Your task to perform on an android device: Go to Android settings Image 0: 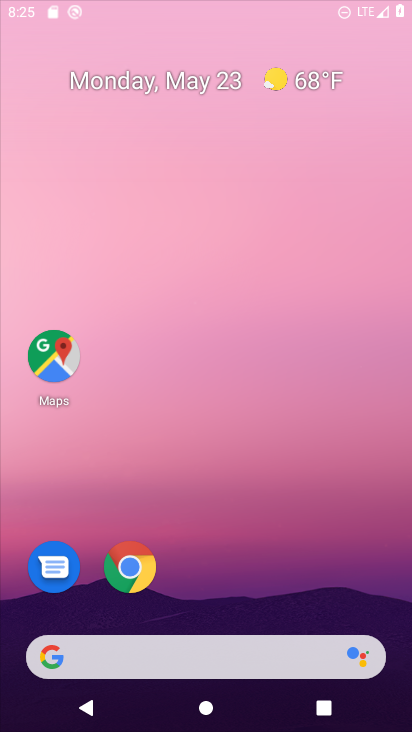
Step 0: click (395, 500)
Your task to perform on an android device: Go to Android settings Image 1: 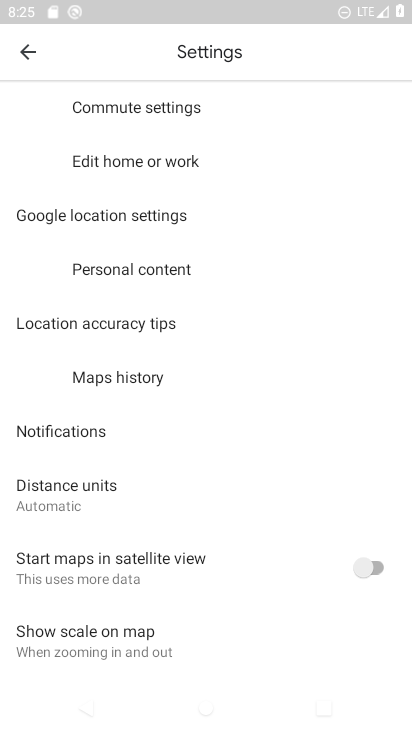
Step 1: drag from (190, 681) to (264, 30)
Your task to perform on an android device: Go to Android settings Image 2: 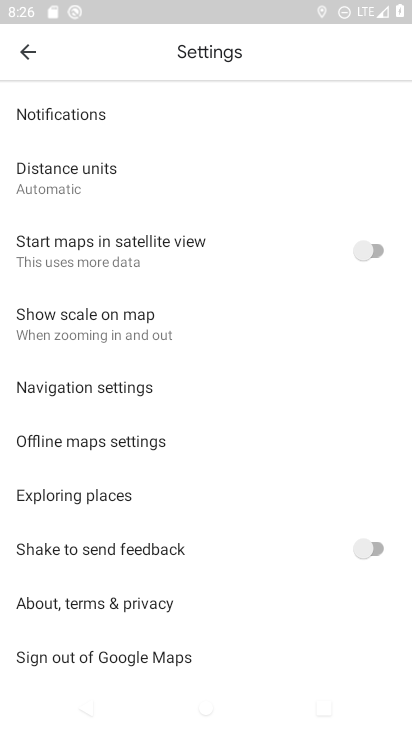
Step 2: drag from (182, 650) to (331, 7)
Your task to perform on an android device: Go to Android settings Image 3: 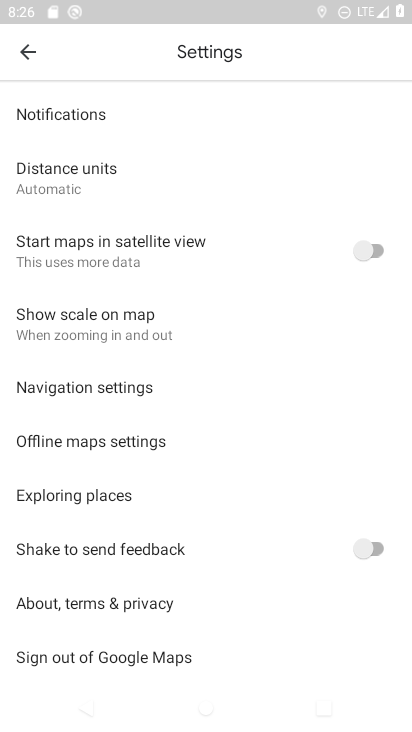
Step 3: drag from (194, 248) to (212, 676)
Your task to perform on an android device: Go to Android settings Image 4: 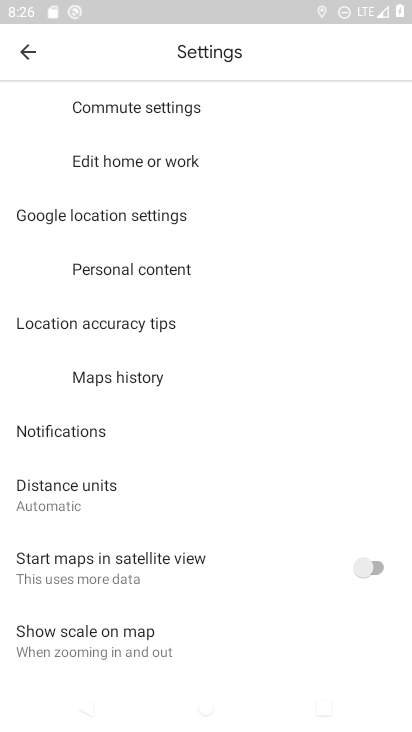
Step 4: drag from (138, 170) to (280, 597)
Your task to perform on an android device: Go to Android settings Image 5: 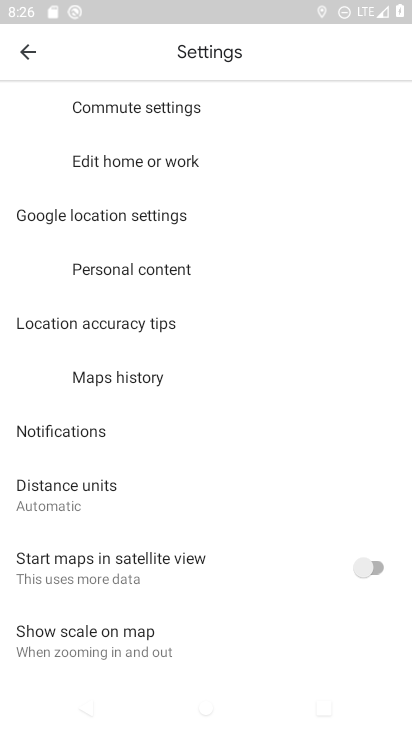
Step 5: press home button
Your task to perform on an android device: Go to Android settings Image 6: 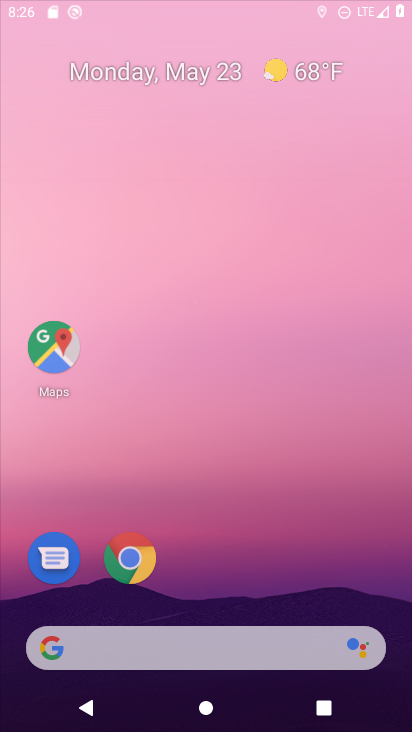
Step 6: drag from (129, 565) to (235, 92)
Your task to perform on an android device: Go to Android settings Image 7: 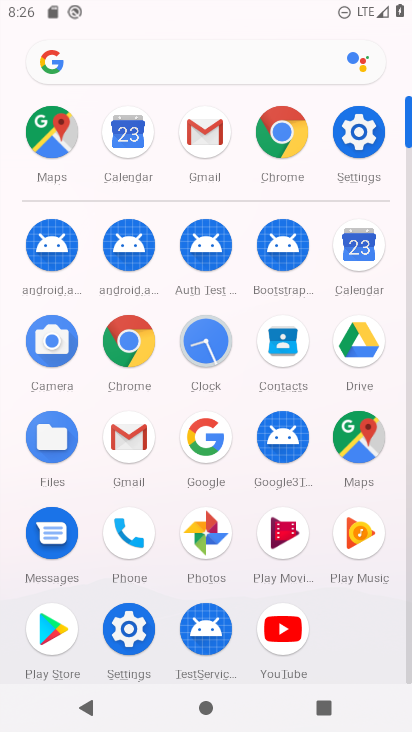
Step 7: click (351, 142)
Your task to perform on an android device: Go to Android settings Image 8: 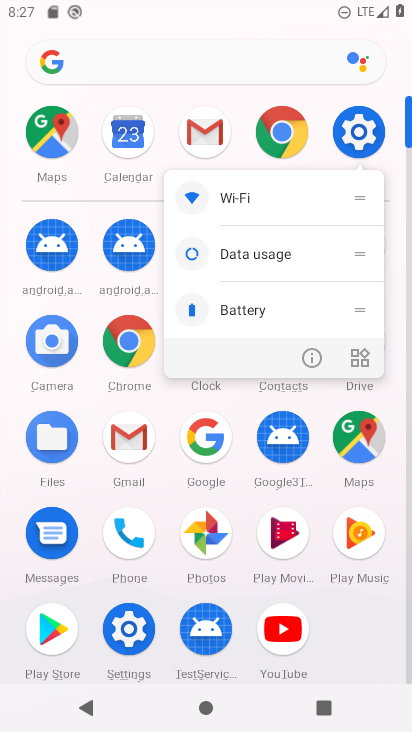
Step 8: click (310, 365)
Your task to perform on an android device: Go to Android settings Image 9: 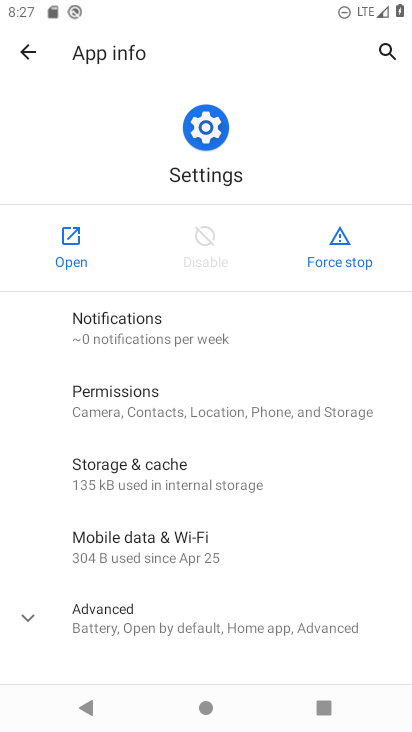
Step 9: click (76, 242)
Your task to perform on an android device: Go to Android settings Image 10: 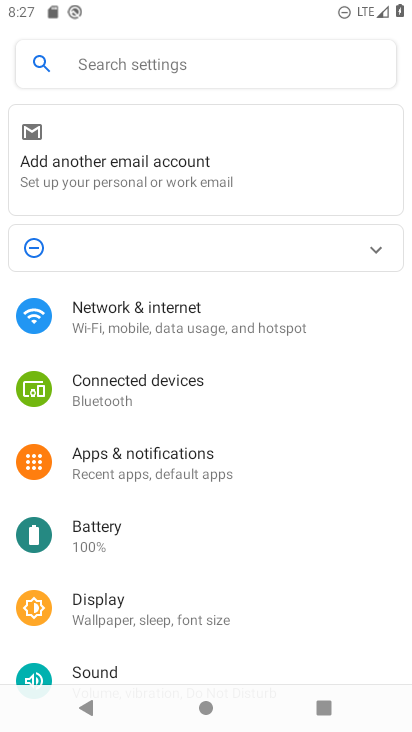
Step 10: drag from (234, 591) to (319, 10)
Your task to perform on an android device: Go to Android settings Image 11: 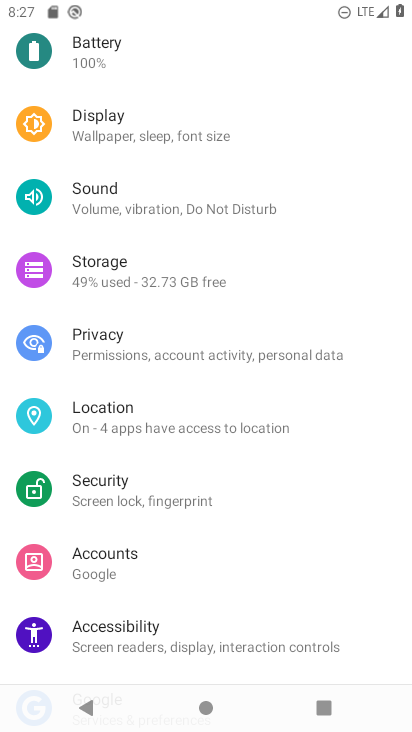
Step 11: drag from (183, 600) to (302, 34)
Your task to perform on an android device: Go to Android settings Image 12: 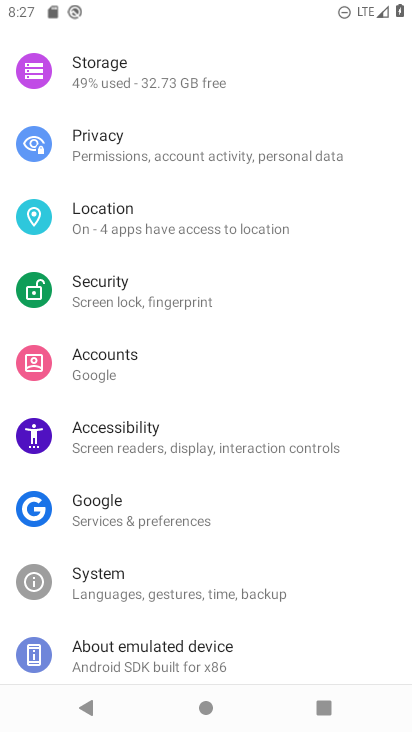
Step 12: click (131, 635)
Your task to perform on an android device: Go to Android settings Image 13: 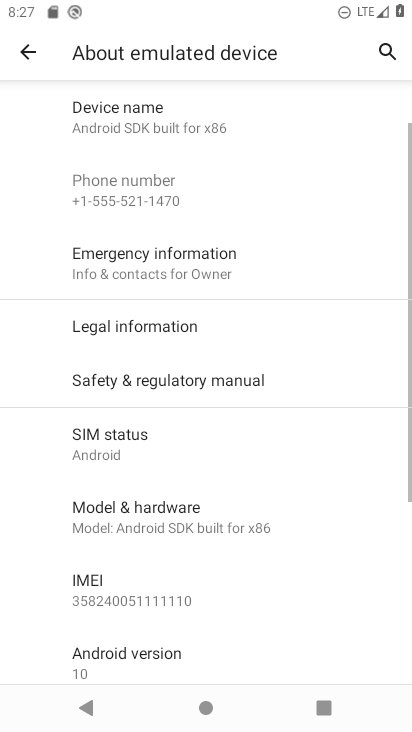
Step 13: drag from (136, 616) to (297, 30)
Your task to perform on an android device: Go to Android settings Image 14: 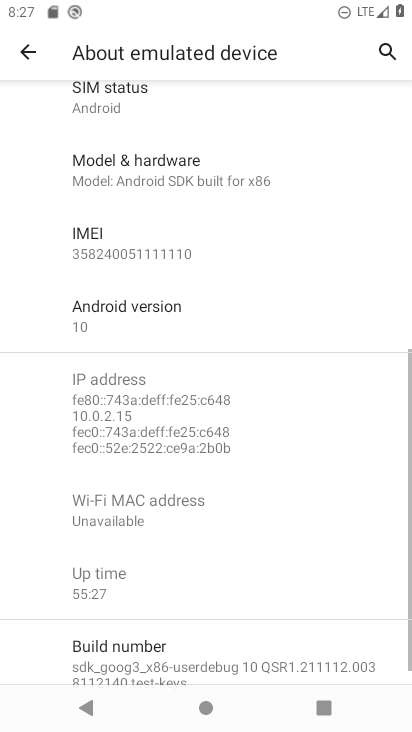
Step 14: click (122, 301)
Your task to perform on an android device: Go to Android settings Image 15: 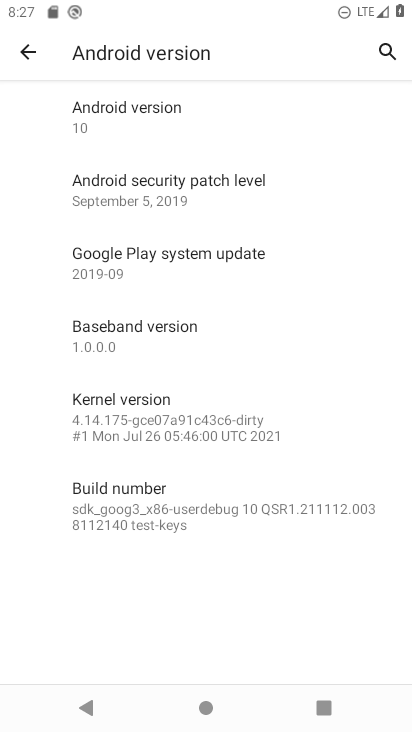
Step 15: task complete